Your task to perform on an android device: Open network settings Image 0: 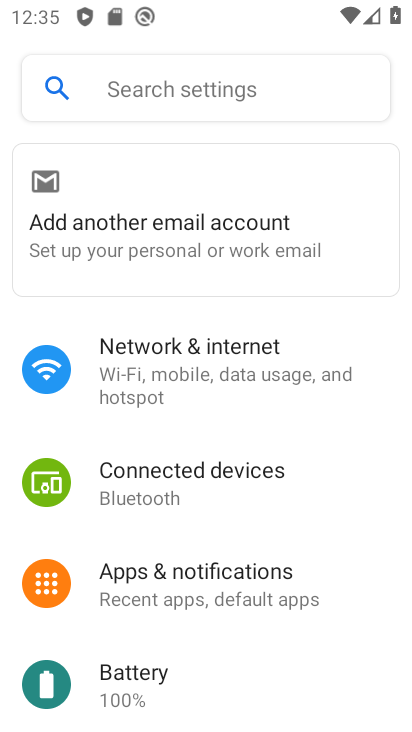
Step 0: click (226, 365)
Your task to perform on an android device: Open network settings Image 1: 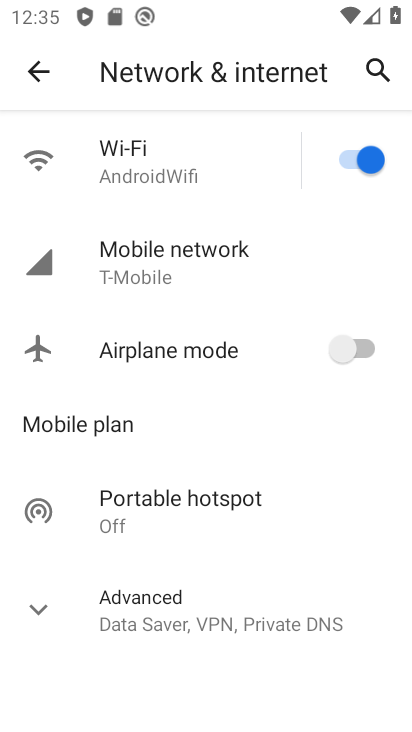
Step 1: click (170, 266)
Your task to perform on an android device: Open network settings Image 2: 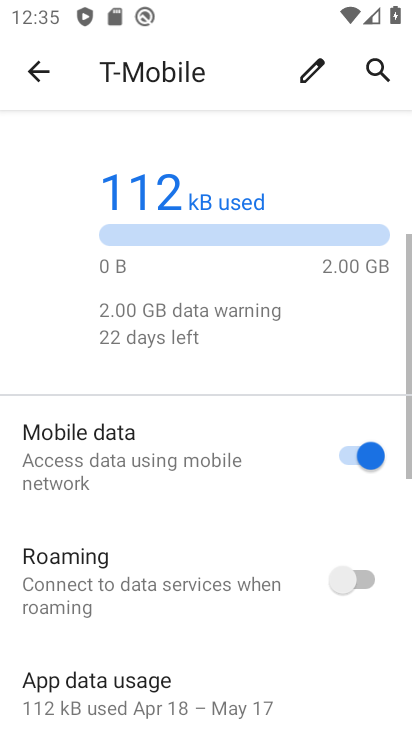
Step 2: task complete